Your task to perform on an android device: turn vacation reply on in the gmail app Image 0: 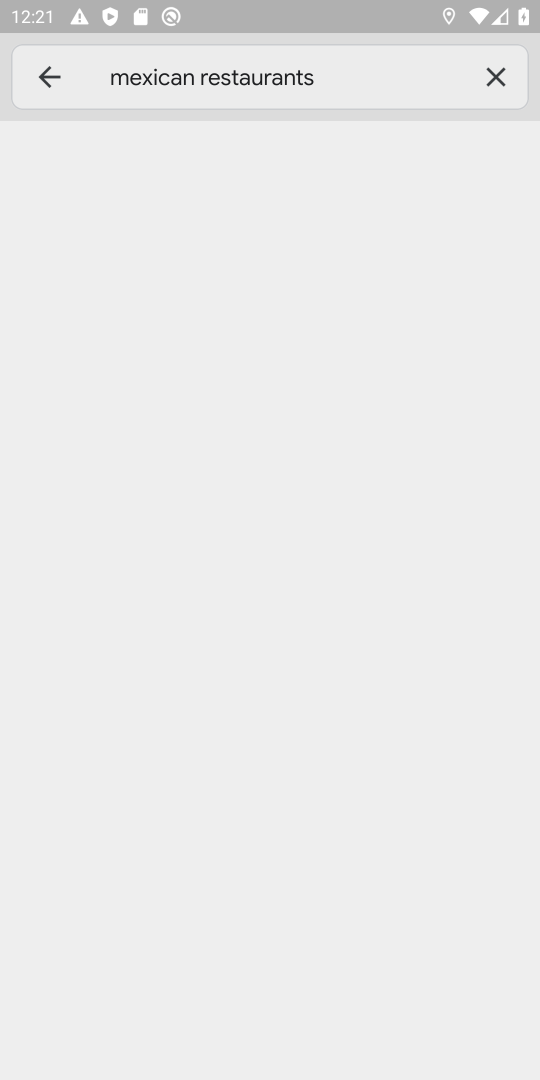
Step 0: press home button
Your task to perform on an android device: turn vacation reply on in the gmail app Image 1: 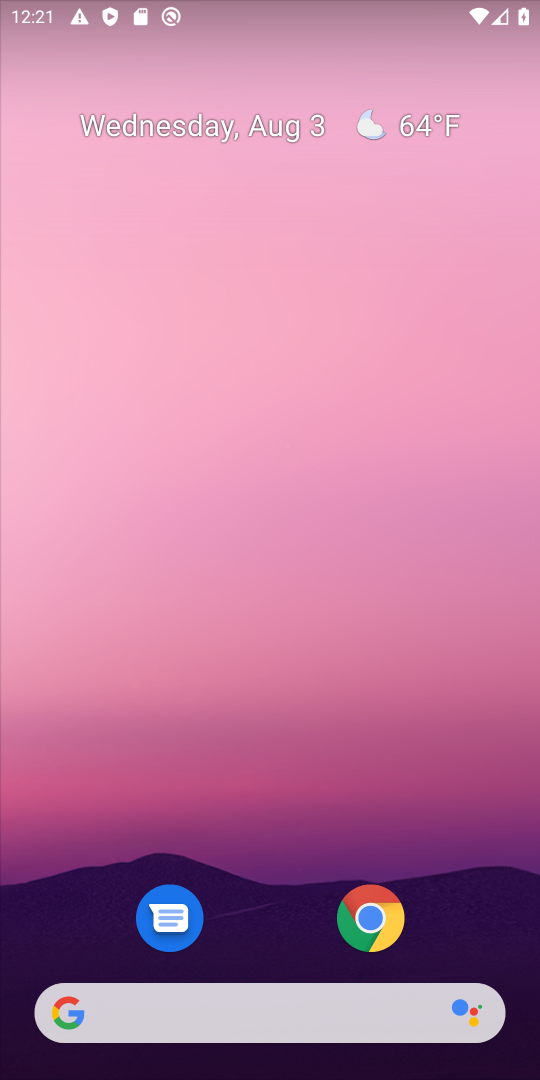
Step 1: drag from (283, 699) to (251, 32)
Your task to perform on an android device: turn vacation reply on in the gmail app Image 2: 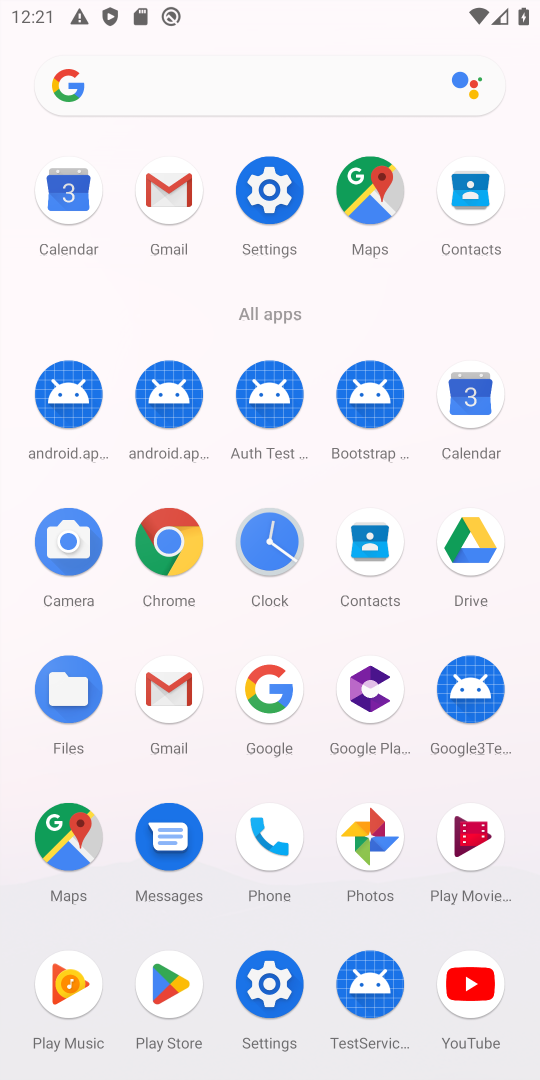
Step 2: click (172, 177)
Your task to perform on an android device: turn vacation reply on in the gmail app Image 3: 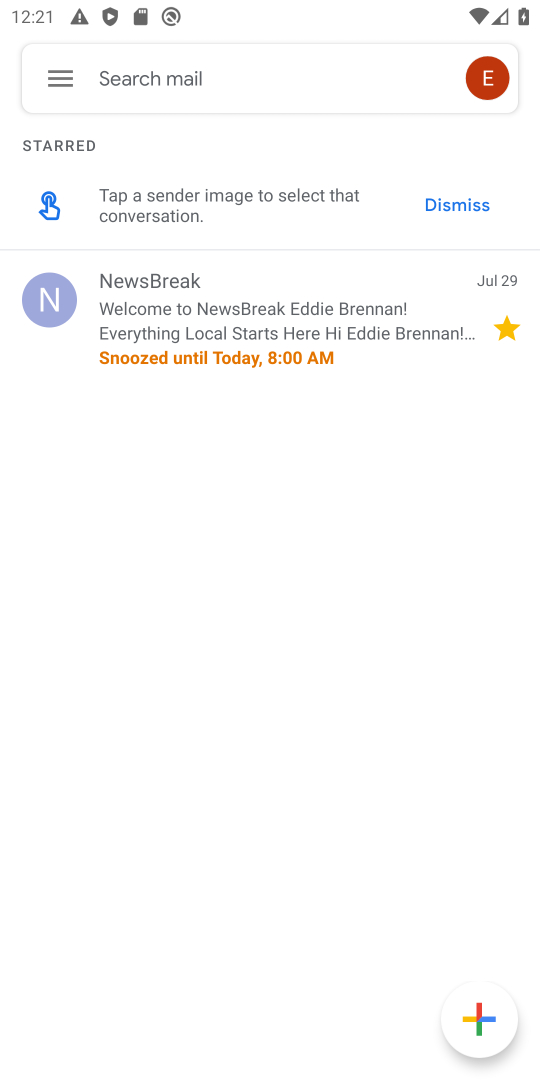
Step 3: click (69, 81)
Your task to perform on an android device: turn vacation reply on in the gmail app Image 4: 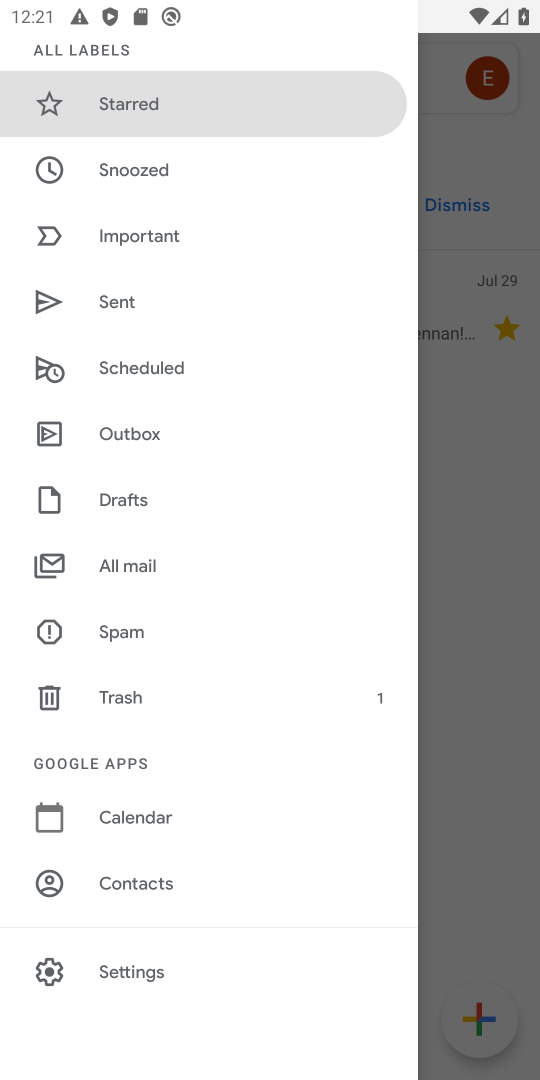
Step 4: click (140, 970)
Your task to perform on an android device: turn vacation reply on in the gmail app Image 5: 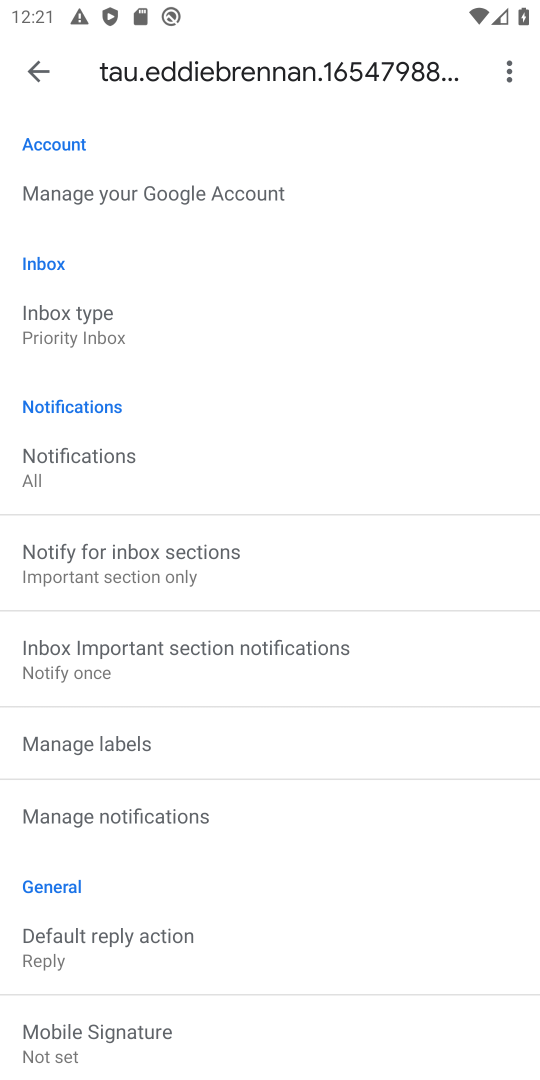
Step 5: drag from (276, 960) to (313, 351)
Your task to perform on an android device: turn vacation reply on in the gmail app Image 6: 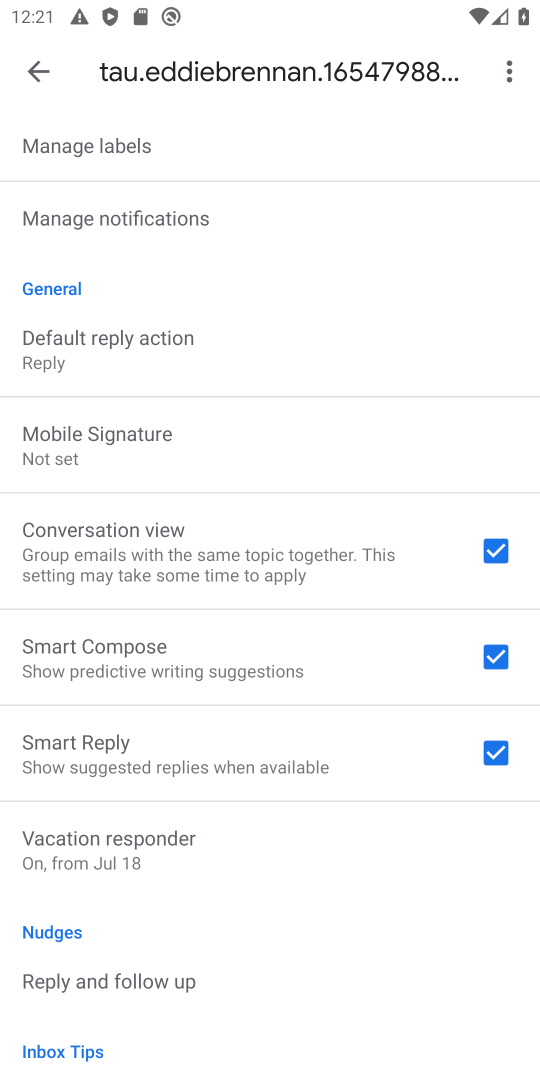
Step 6: click (156, 844)
Your task to perform on an android device: turn vacation reply on in the gmail app Image 7: 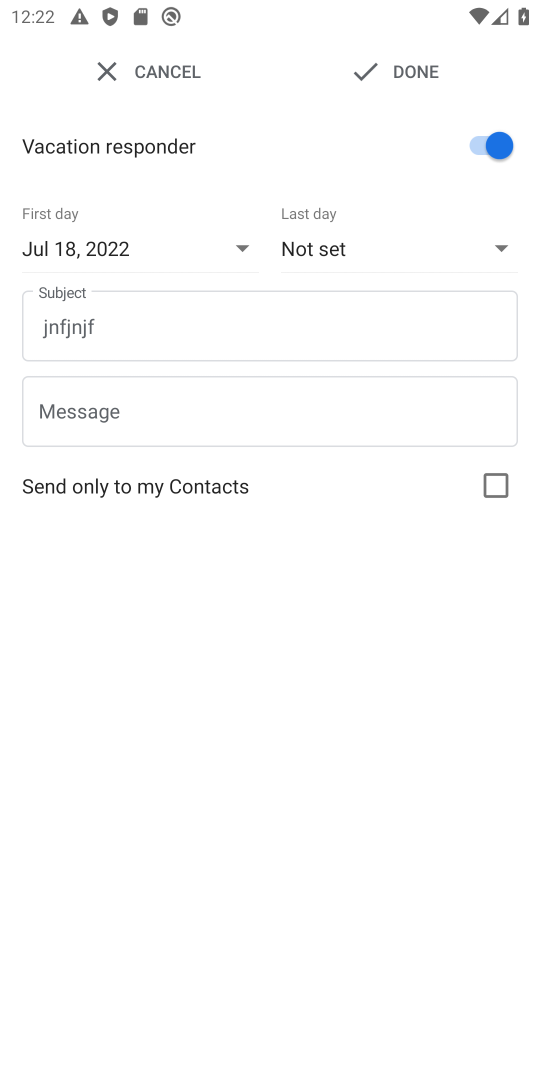
Step 7: task complete